Your task to perform on an android device: Go to Amazon Image 0: 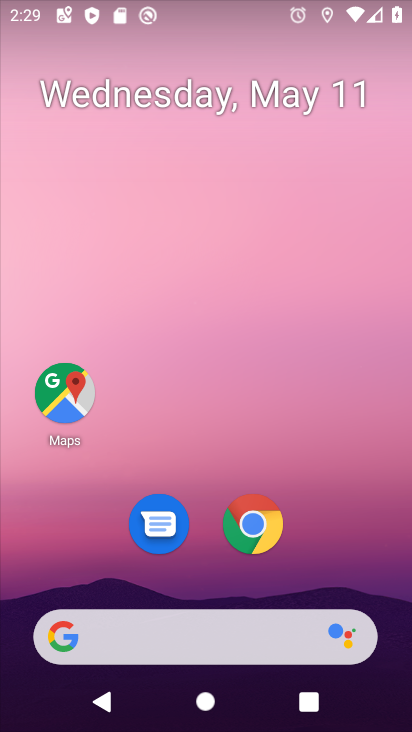
Step 0: click (266, 635)
Your task to perform on an android device: Go to Amazon Image 1: 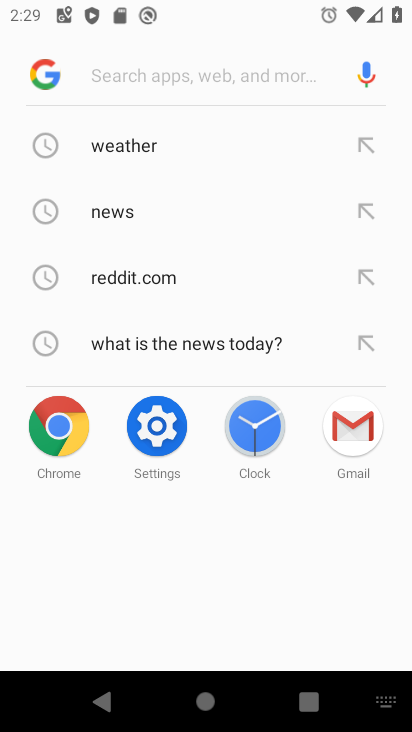
Step 1: type "amazon"
Your task to perform on an android device: Go to Amazon Image 2: 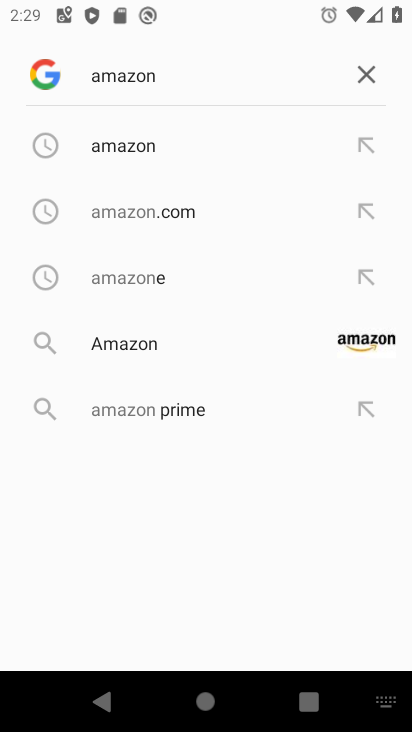
Step 2: click (139, 344)
Your task to perform on an android device: Go to Amazon Image 3: 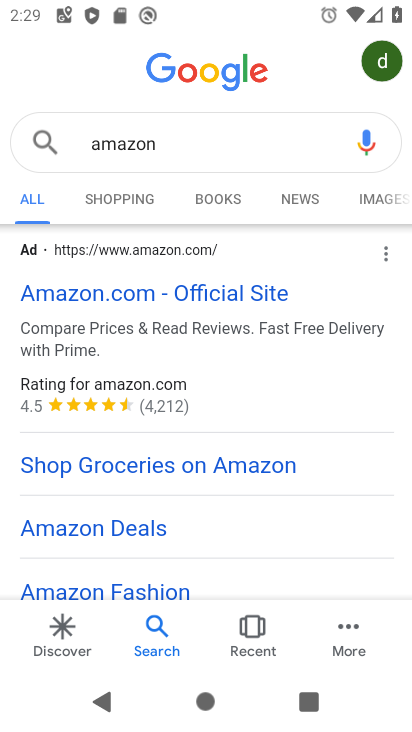
Step 3: click (105, 298)
Your task to perform on an android device: Go to Amazon Image 4: 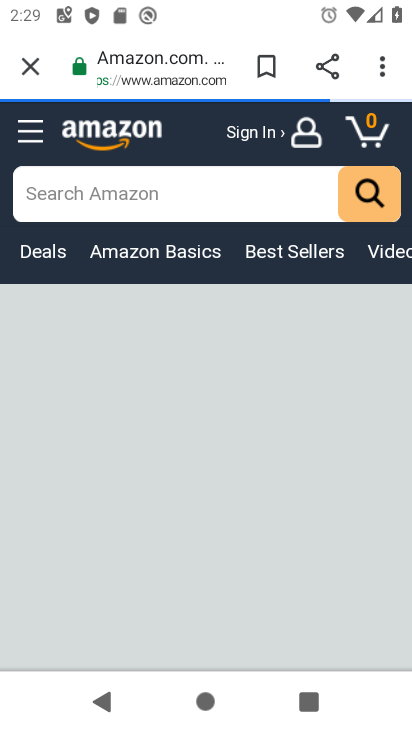
Step 4: task complete